Your task to perform on an android device: Is it going to rain today? Image 0: 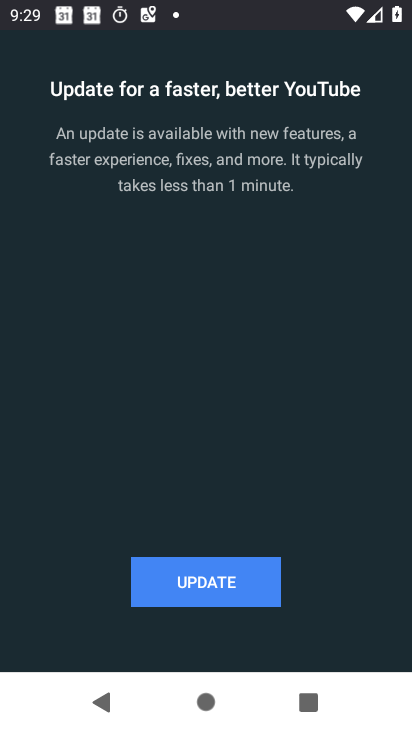
Step 0: press home button
Your task to perform on an android device: Is it going to rain today? Image 1: 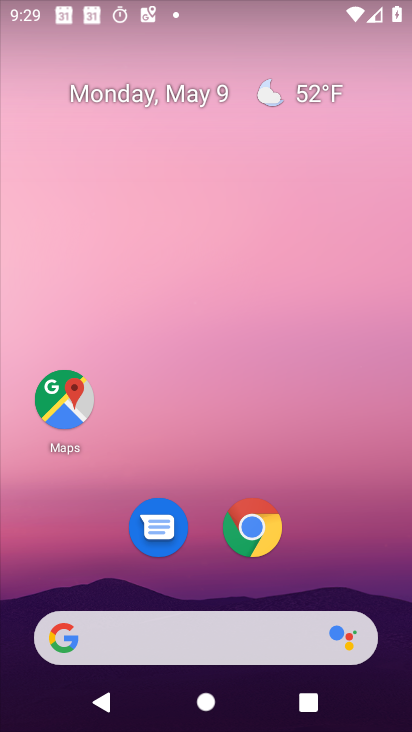
Step 1: drag from (359, 574) to (350, 219)
Your task to perform on an android device: Is it going to rain today? Image 2: 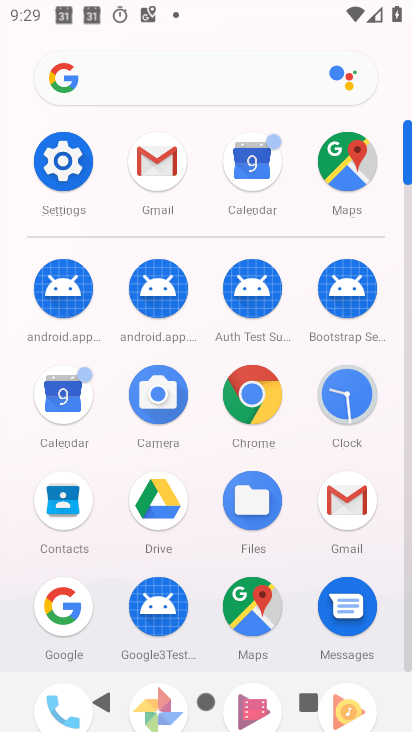
Step 2: click (261, 410)
Your task to perform on an android device: Is it going to rain today? Image 3: 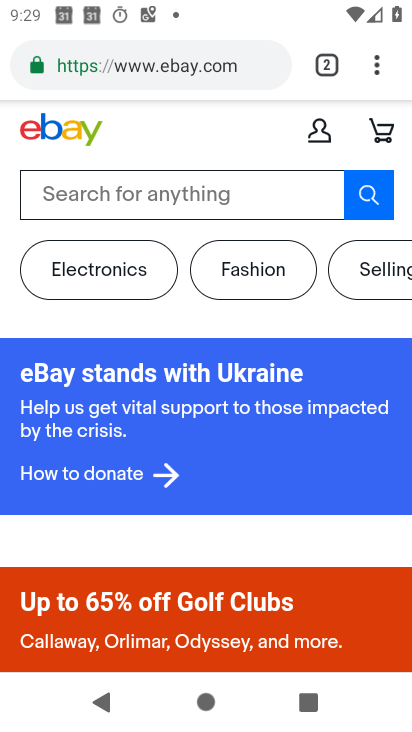
Step 3: click (182, 70)
Your task to perform on an android device: Is it going to rain today? Image 4: 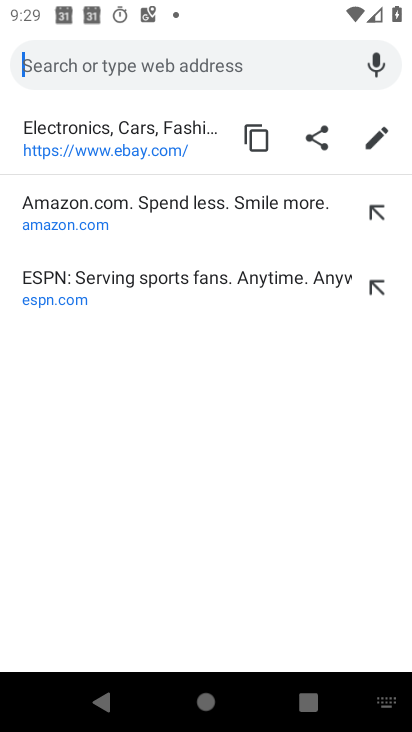
Step 4: type "is it going to r"
Your task to perform on an android device: Is it going to rain today? Image 5: 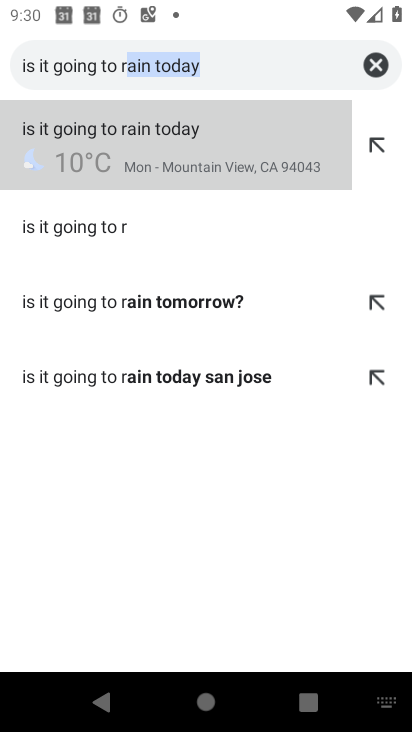
Step 5: click (213, 153)
Your task to perform on an android device: Is it going to rain today? Image 6: 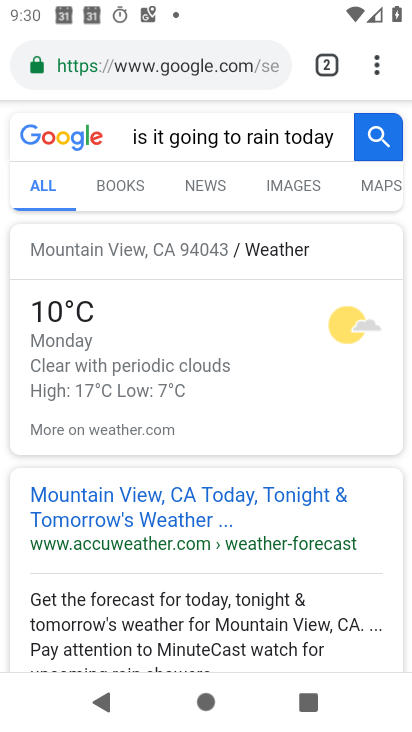
Step 6: task complete